Your task to perform on an android device: Open Youtube and go to "Your channel" Image 0: 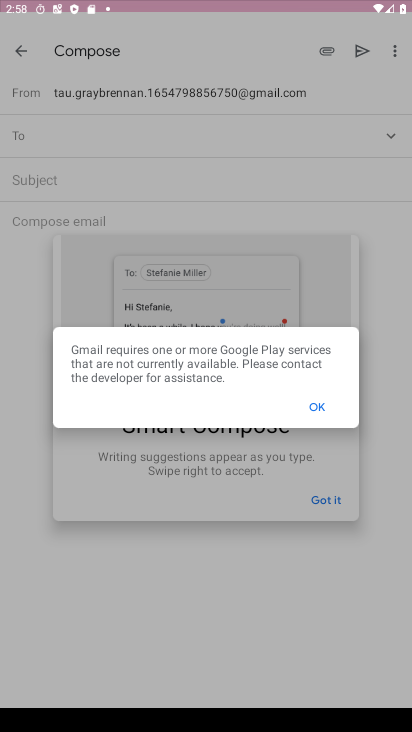
Step 0: press home button
Your task to perform on an android device: Open Youtube and go to "Your channel" Image 1: 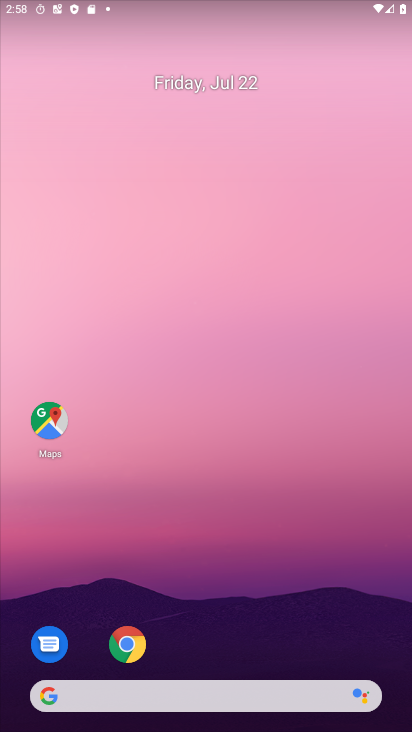
Step 1: drag from (236, 636) to (163, 0)
Your task to perform on an android device: Open Youtube and go to "Your channel" Image 2: 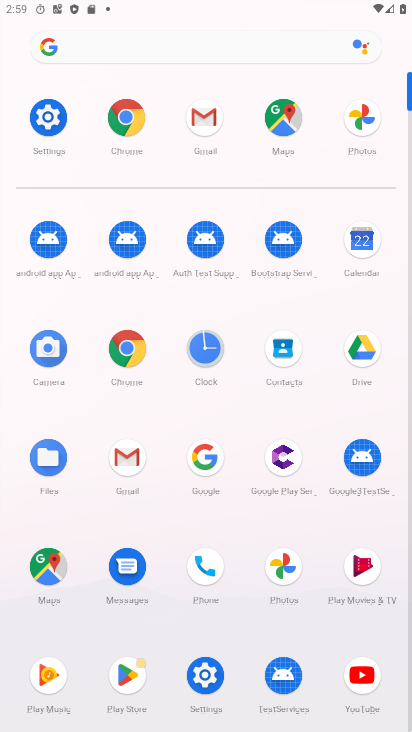
Step 2: click (353, 670)
Your task to perform on an android device: Open Youtube and go to "Your channel" Image 3: 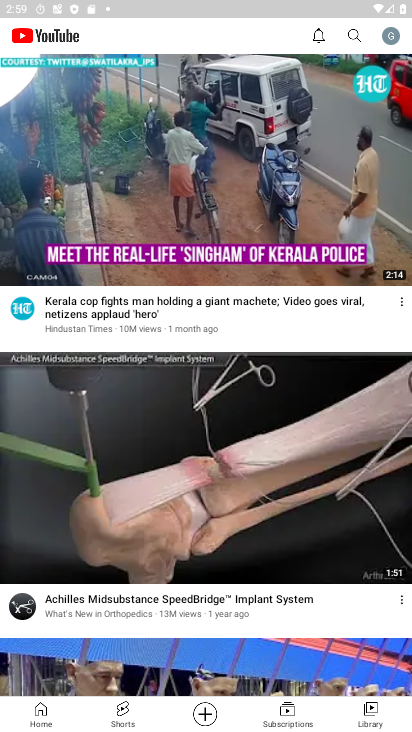
Step 3: click (388, 36)
Your task to perform on an android device: Open Youtube and go to "Your channel" Image 4: 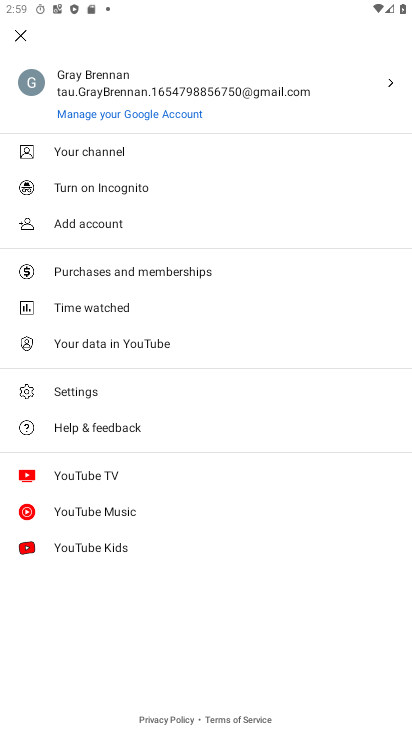
Step 4: click (81, 150)
Your task to perform on an android device: Open Youtube and go to "Your channel" Image 5: 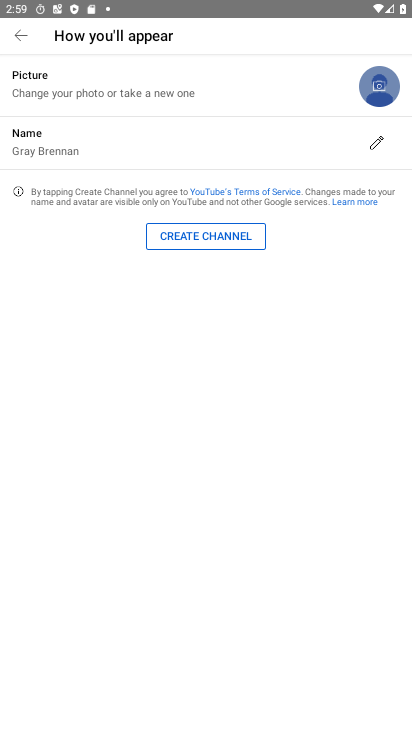
Step 5: task complete